Your task to perform on an android device: open chrome and create a bookmark for the current page Image 0: 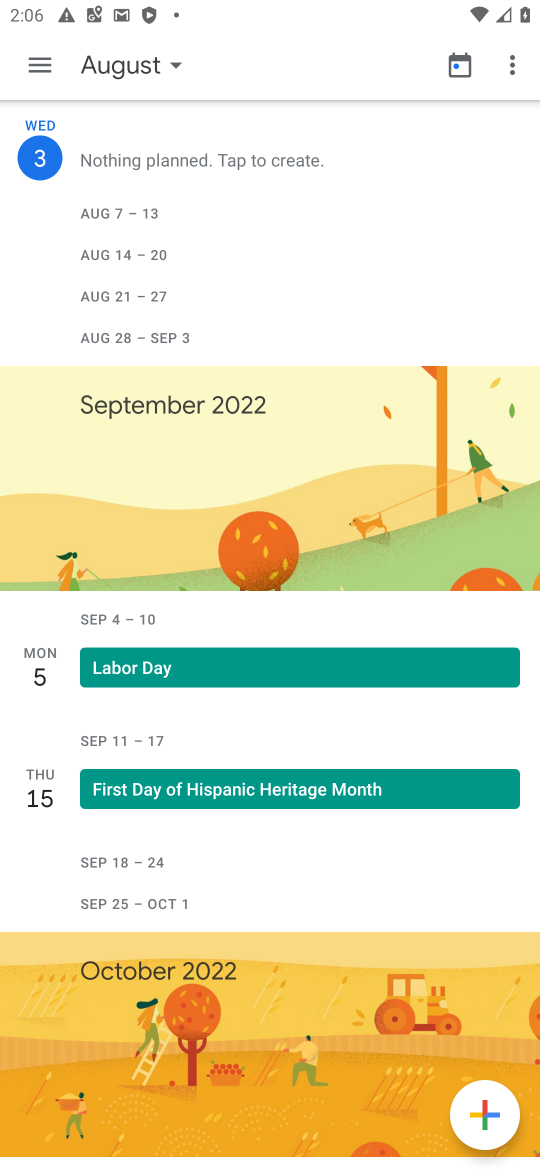
Step 0: press home button
Your task to perform on an android device: open chrome and create a bookmark for the current page Image 1: 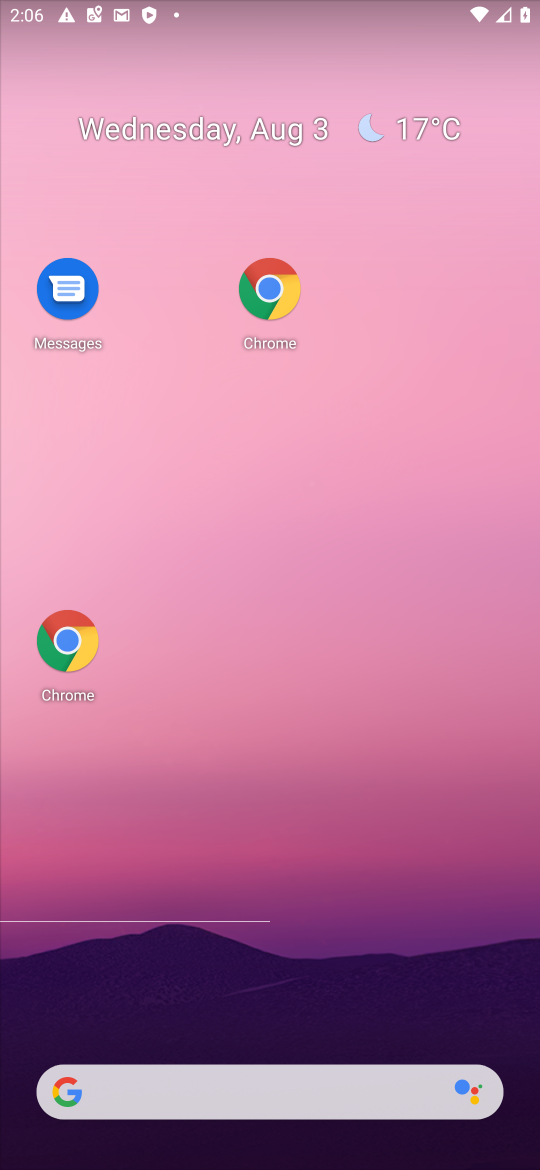
Step 1: click (80, 660)
Your task to perform on an android device: open chrome and create a bookmark for the current page Image 2: 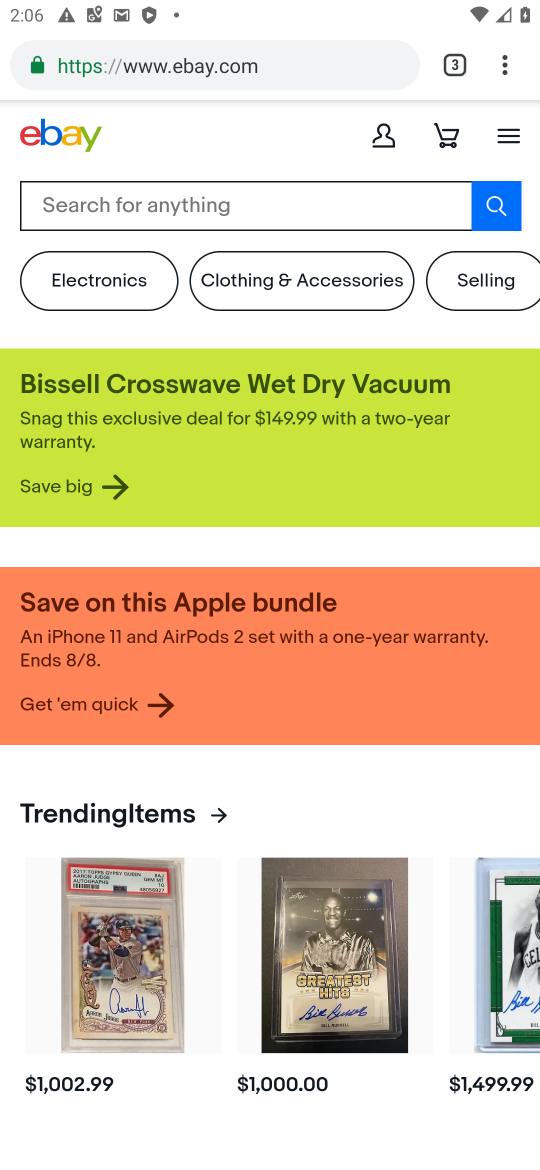
Step 2: click (510, 57)
Your task to perform on an android device: open chrome and create a bookmark for the current page Image 3: 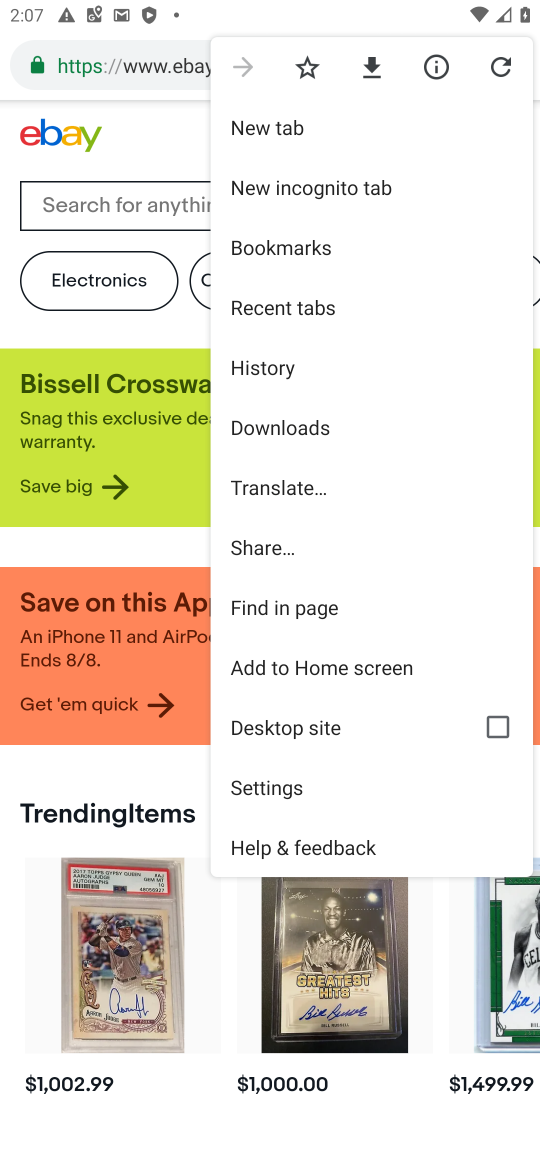
Step 3: click (259, 314)
Your task to perform on an android device: open chrome and create a bookmark for the current page Image 4: 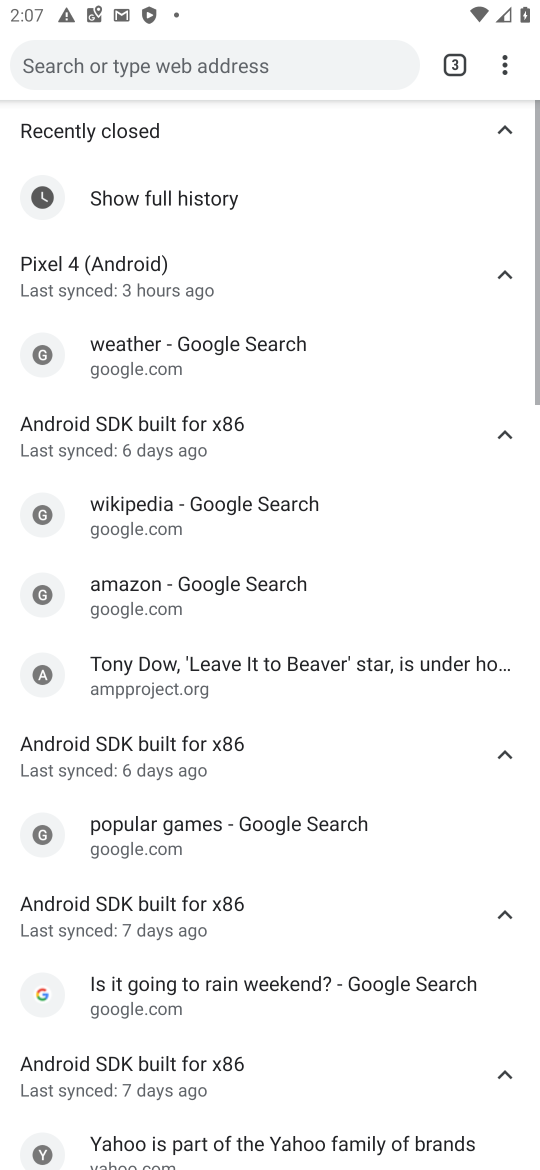
Step 4: task complete